Your task to perform on an android device: Go to notification settings Image 0: 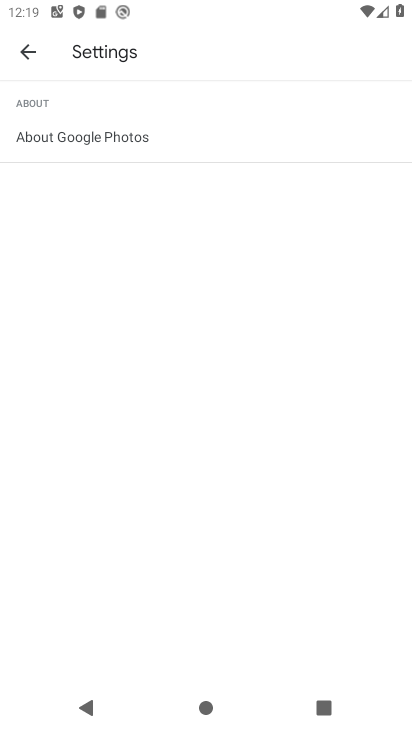
Step 0: press home button
Your task to perform on an android device: Go to notification settings Image 1: 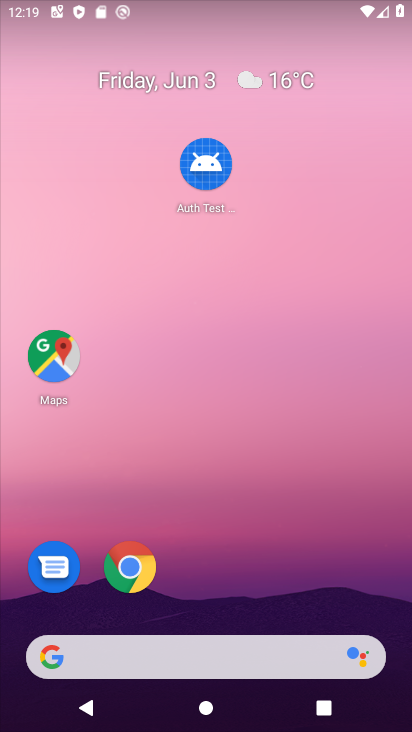
Step 1: drag from (228, 541) to (268, 144)
Your task to perform on an android device: Go to notification settings Image 2: 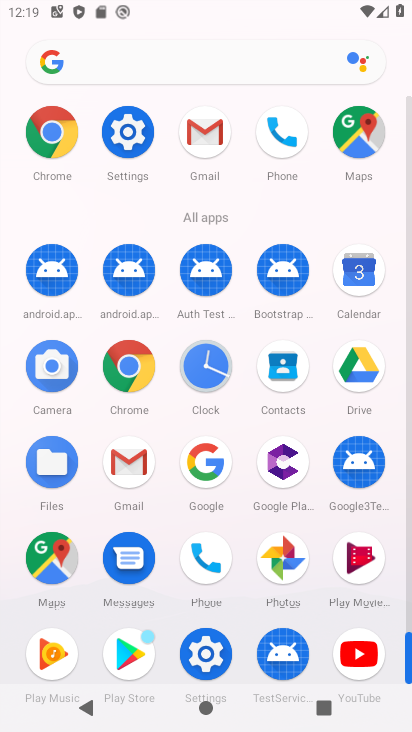
Step 2: drag from (286, 257) to (51, 66)
Your task to perform on an android device: Go to notification settings Image 3: 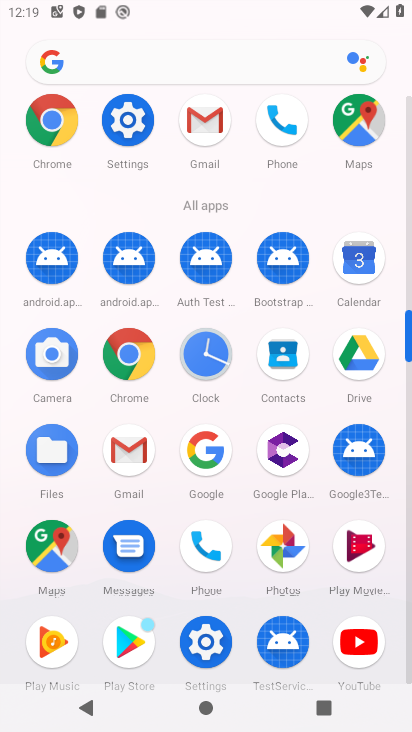
Step 3: click (142, 126)
Your task to perform on an android device: Go to notification settings Image 4: 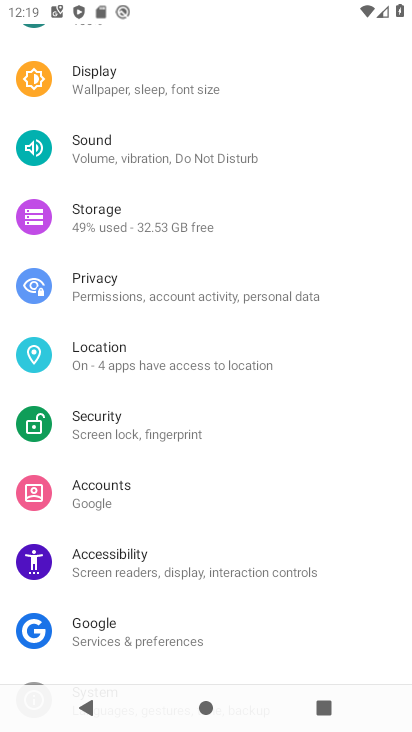
Step 4: drag from (179, 77) to (169, 449)
Your task to perform on an android device: Go to notification settings Image 5: 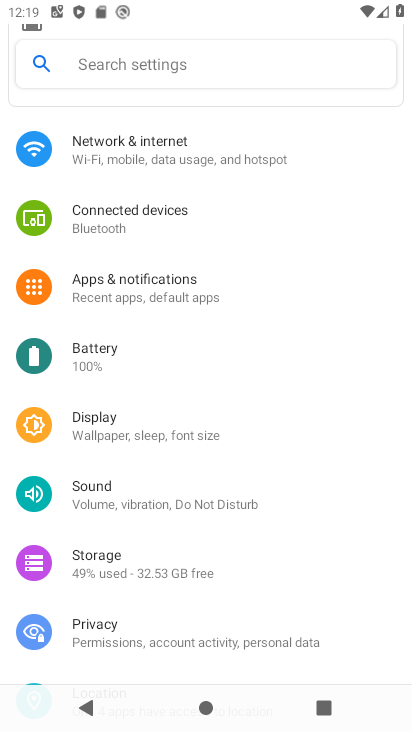
Step 5: click (129, 271)
Your task to perform on an android device: Go to notification settings Image 6: 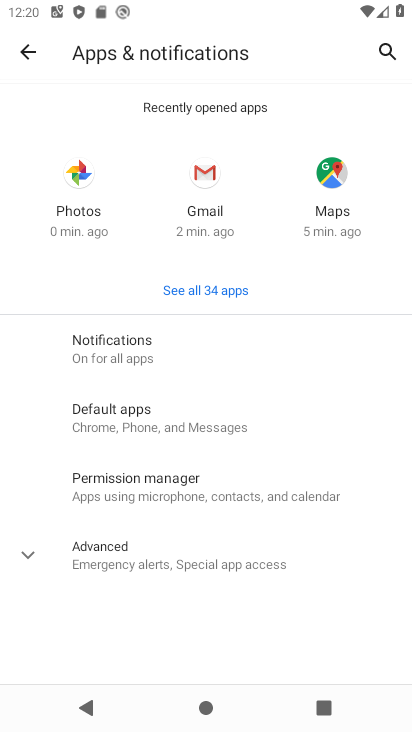
Step 6: task complete